Your task to perform on an android device: Search for top rated pizza restaurants on Maps Image 0: 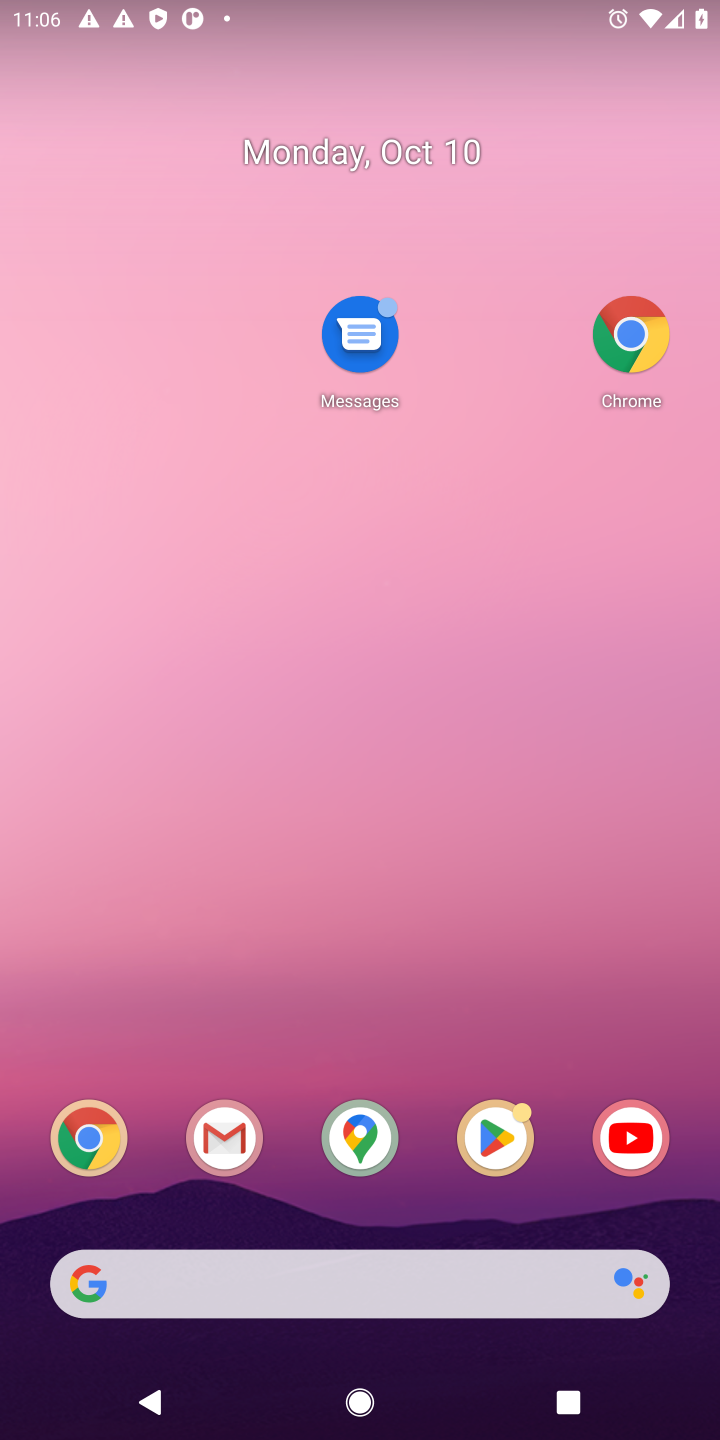
Step 0: click (656, 334)
Your task to perform on an android device: Search for top rated pizza restaurants on Maps Image 1: 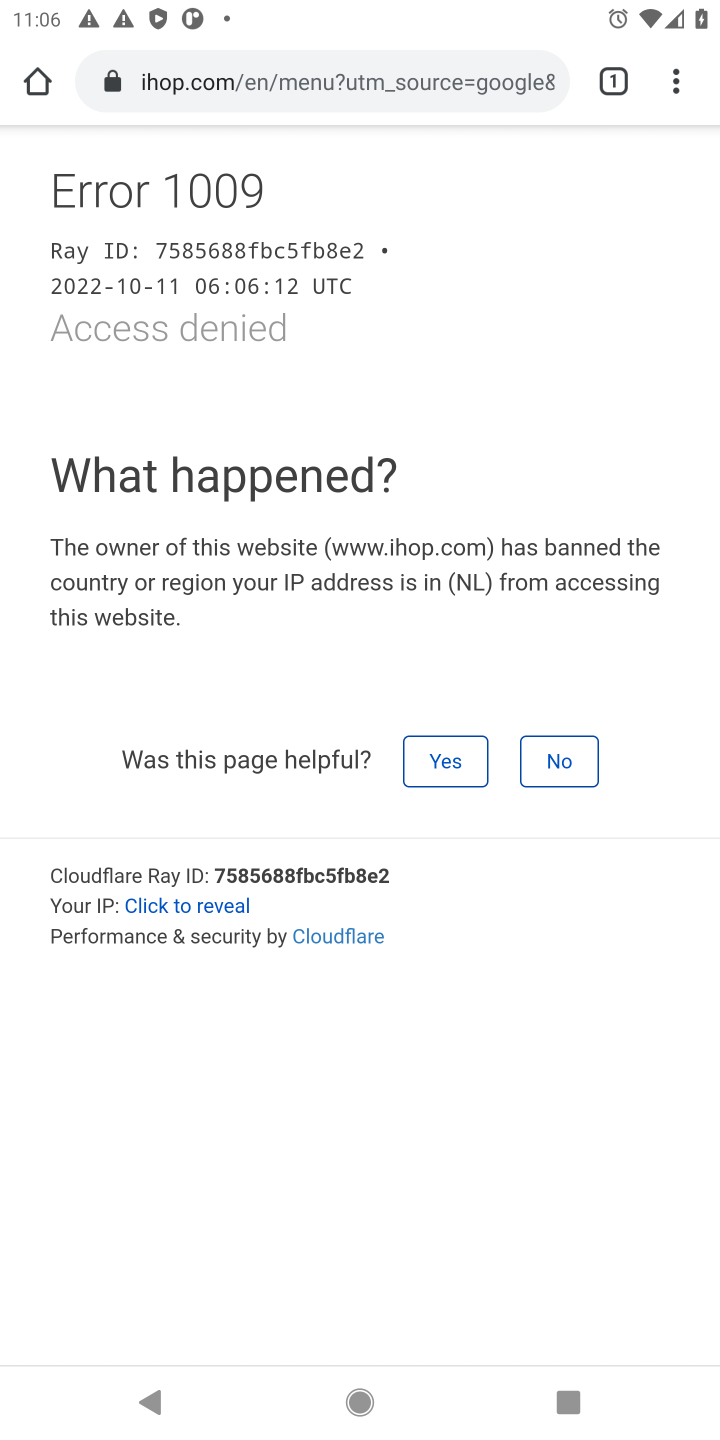
Step 1: press home button
Your task to perform on an android device: Search for top rated pizza restaurants on Maps Image 2: 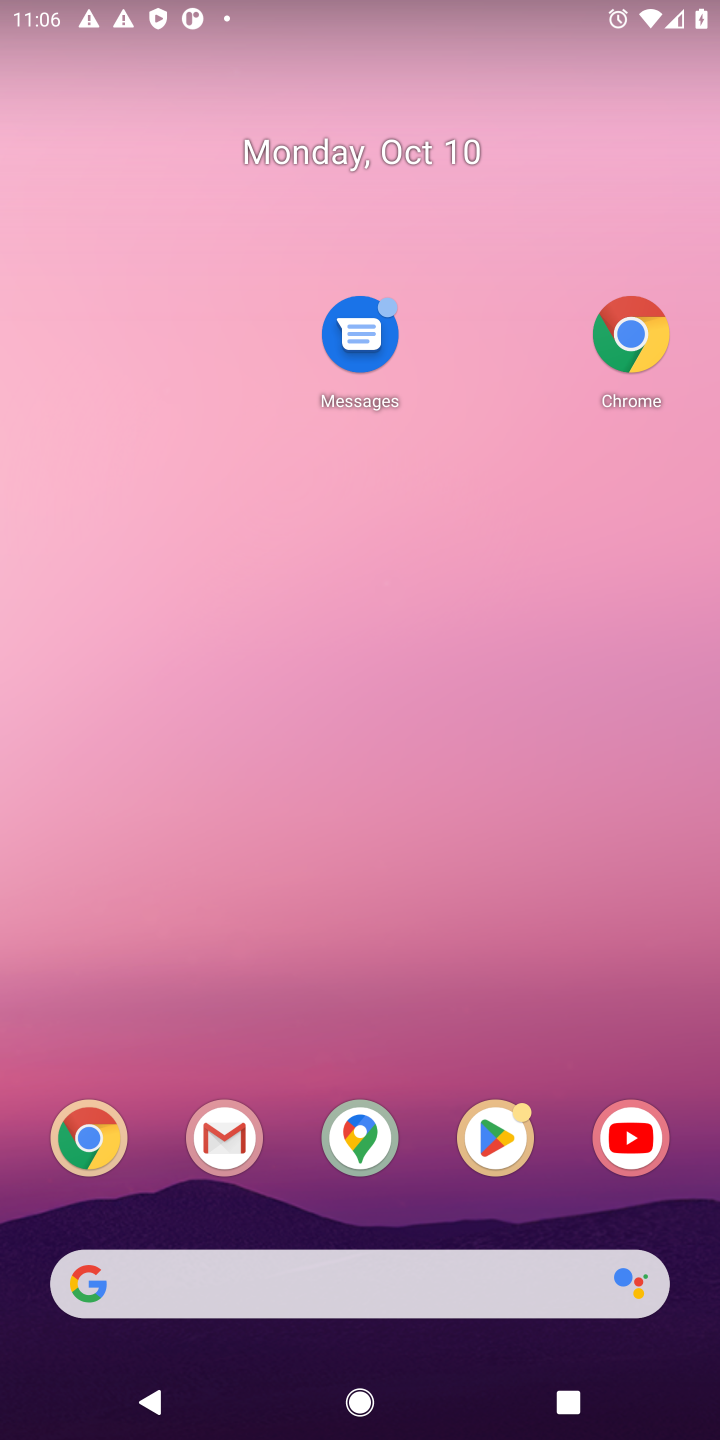
Step 2: click (361, 1143)
Your task to perform on an android device: Search for top rated pizza restaurants on Maps Image 3: 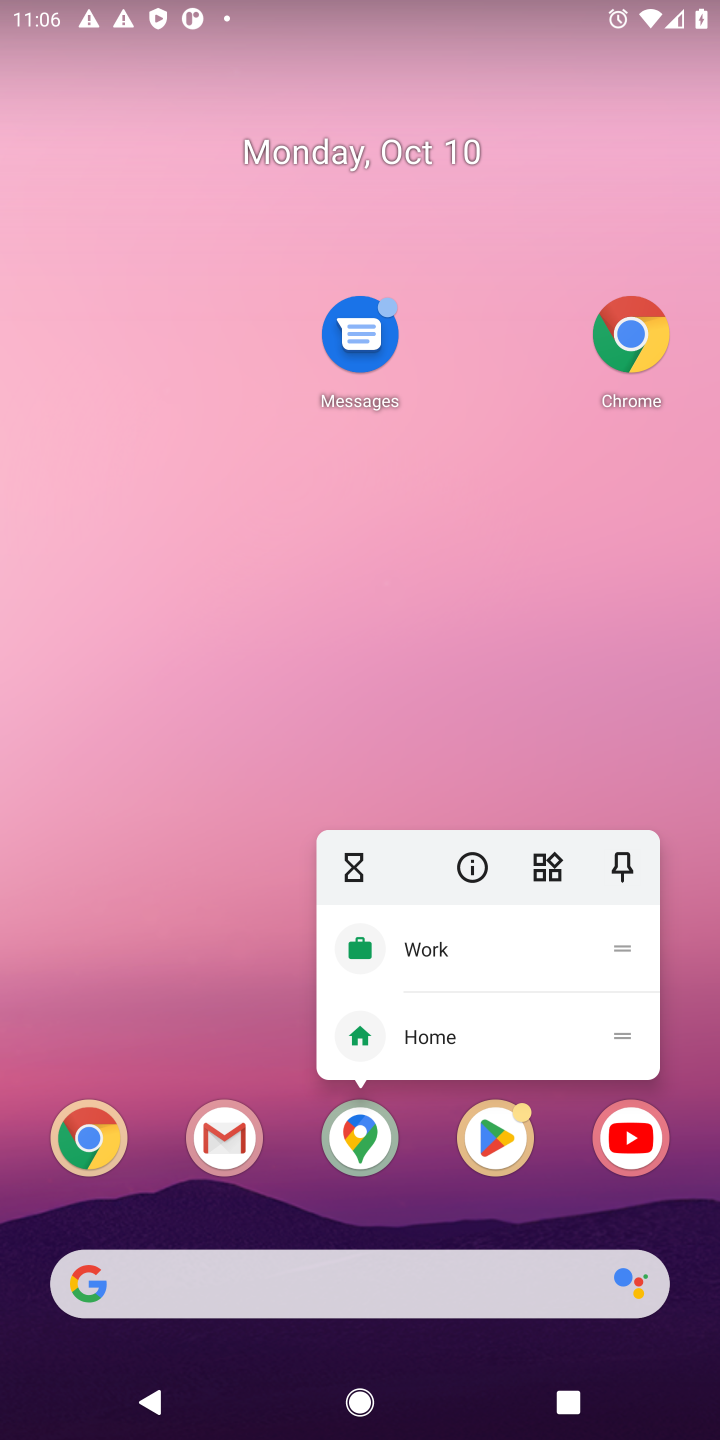
Step 3: click (351, 1153)
Your task to perform on an android device: Search for top rated pizza restaurants on Maps Image 4: 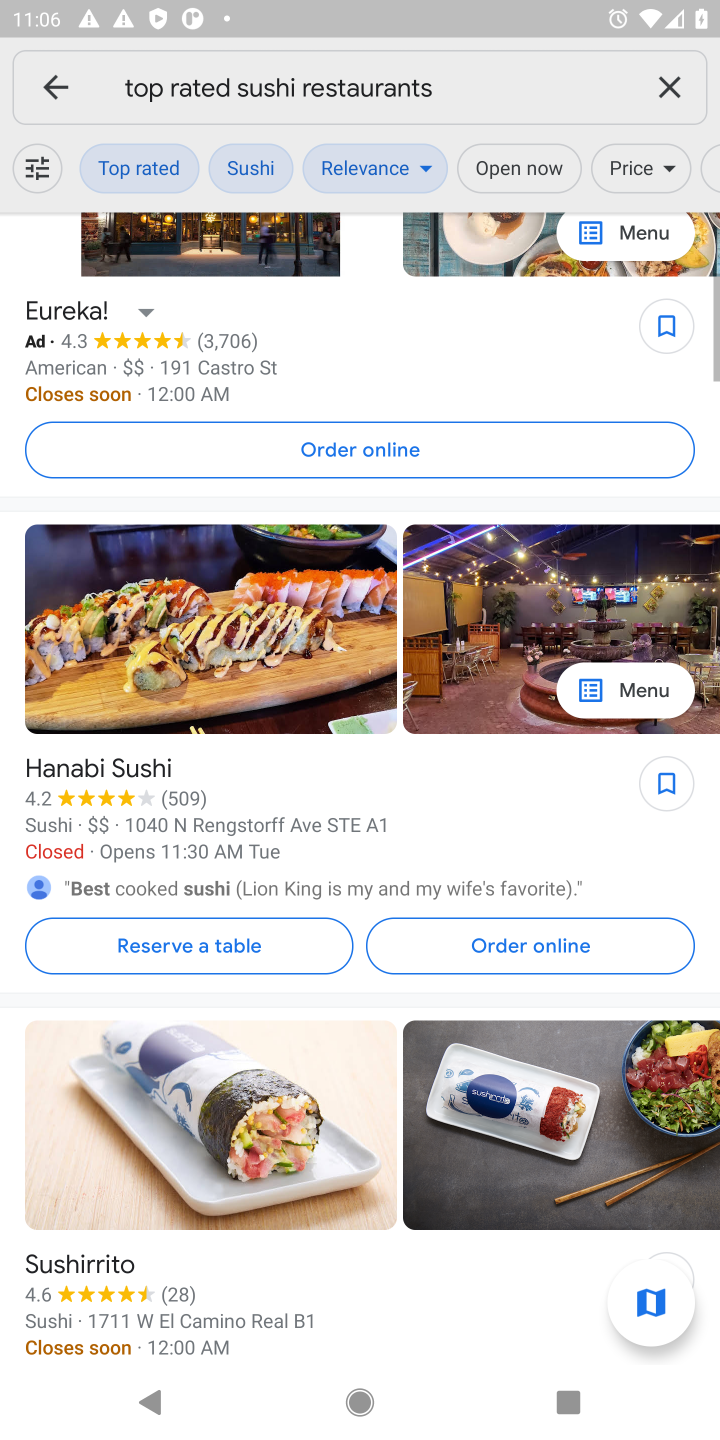
Step 4: click (471, 90)
Your task to perform on an android device: Search for top rated pizza restaurants on Maps Image 5: 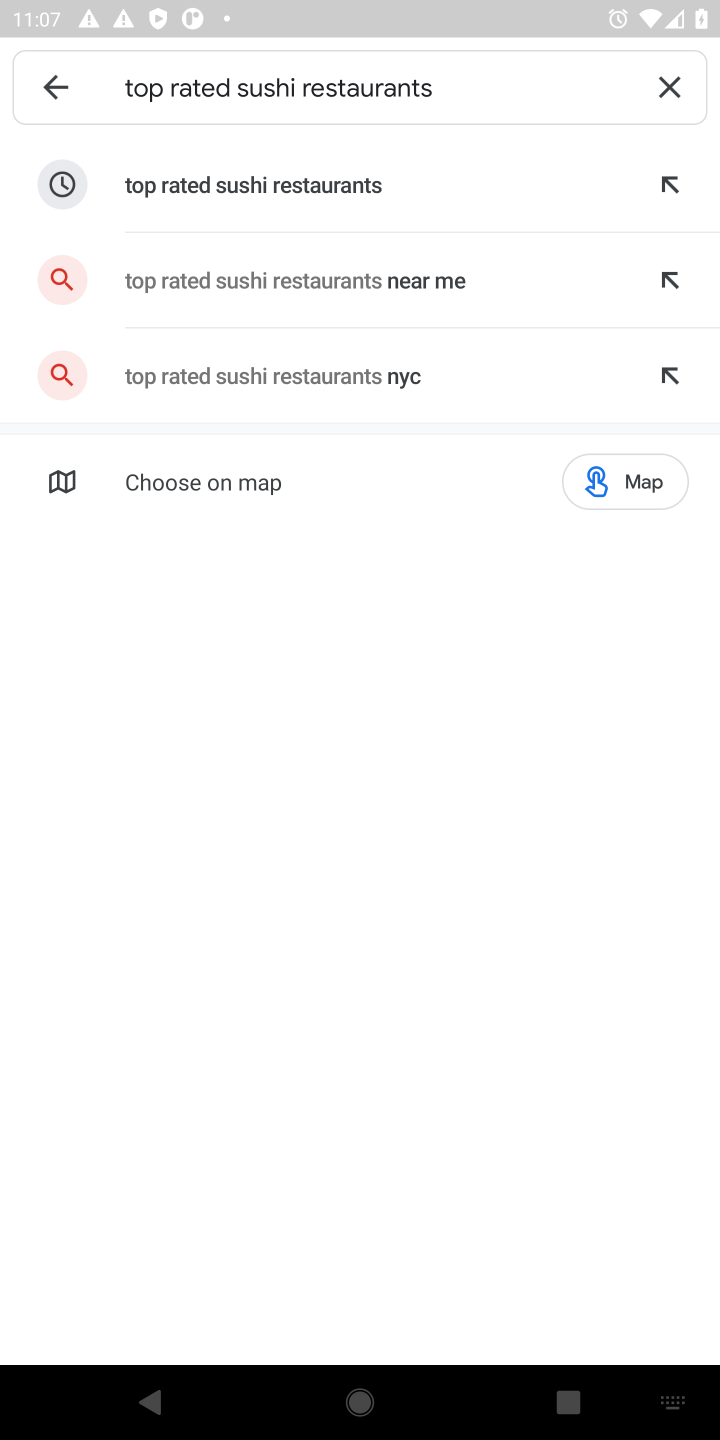
Step 5: click (683, 81)
Your task to perform on an android device: Search for top rated pizza restaurants on Maps Image 6: 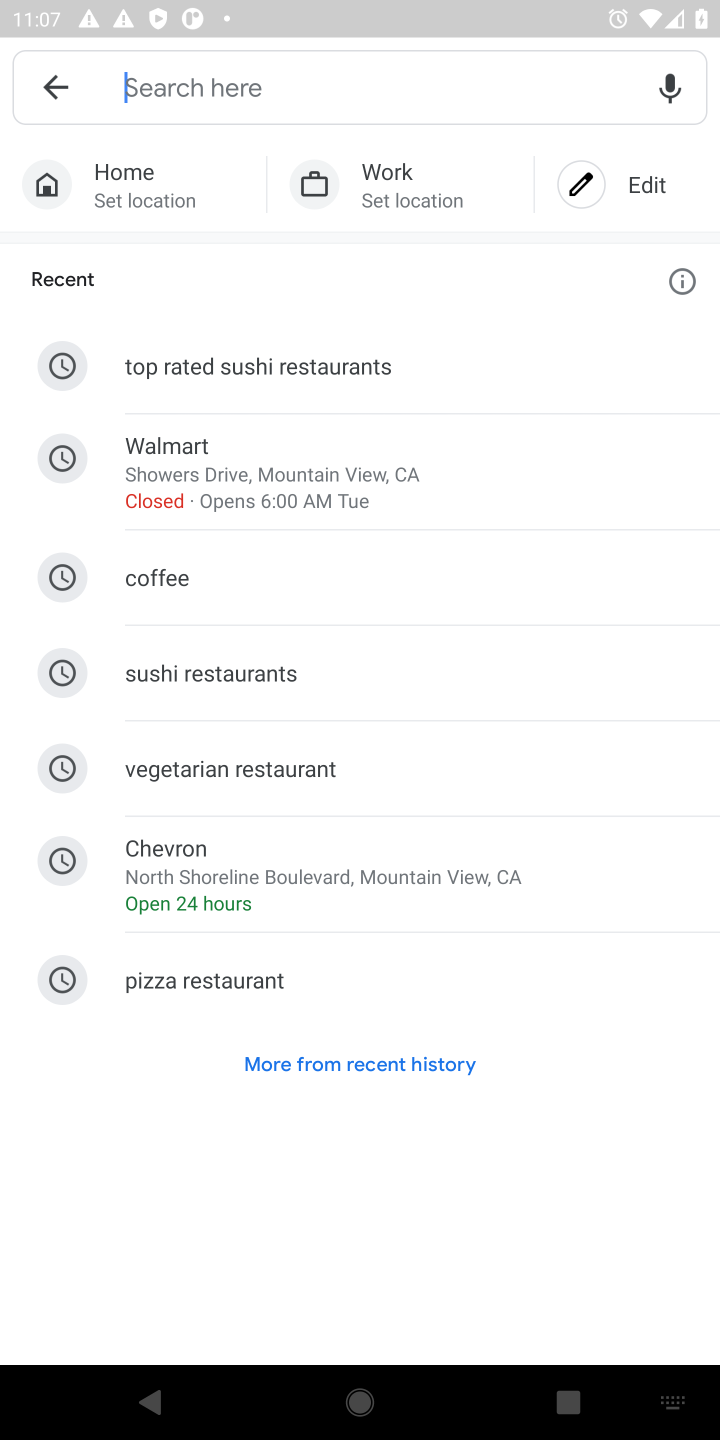
Step 6: type "top rated pizza restaurants"
Your task to perform on an android device: Search for top rated pizza restaurants on Maps Image 7: 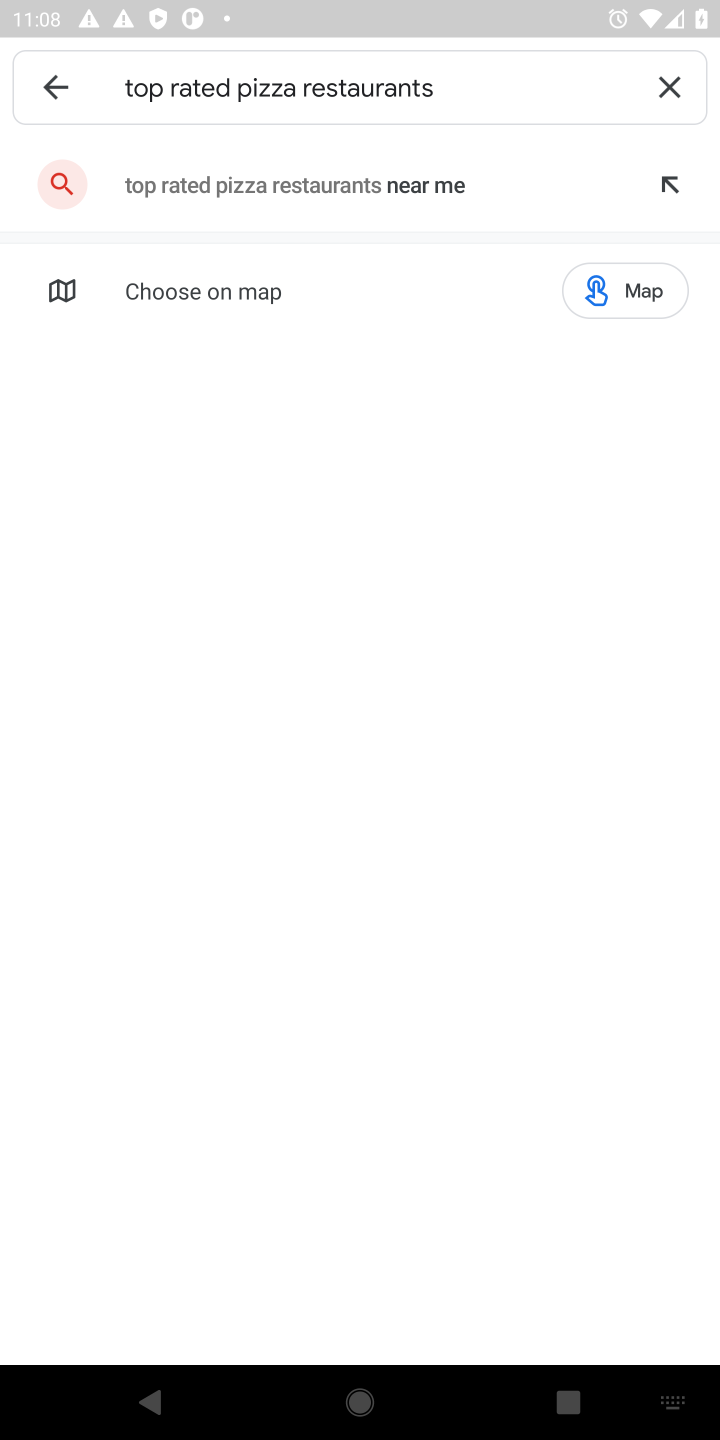
Step 7: press enter
Your task to perform on an android device: Search for top rated pizza restaurants on Maps Image 8: 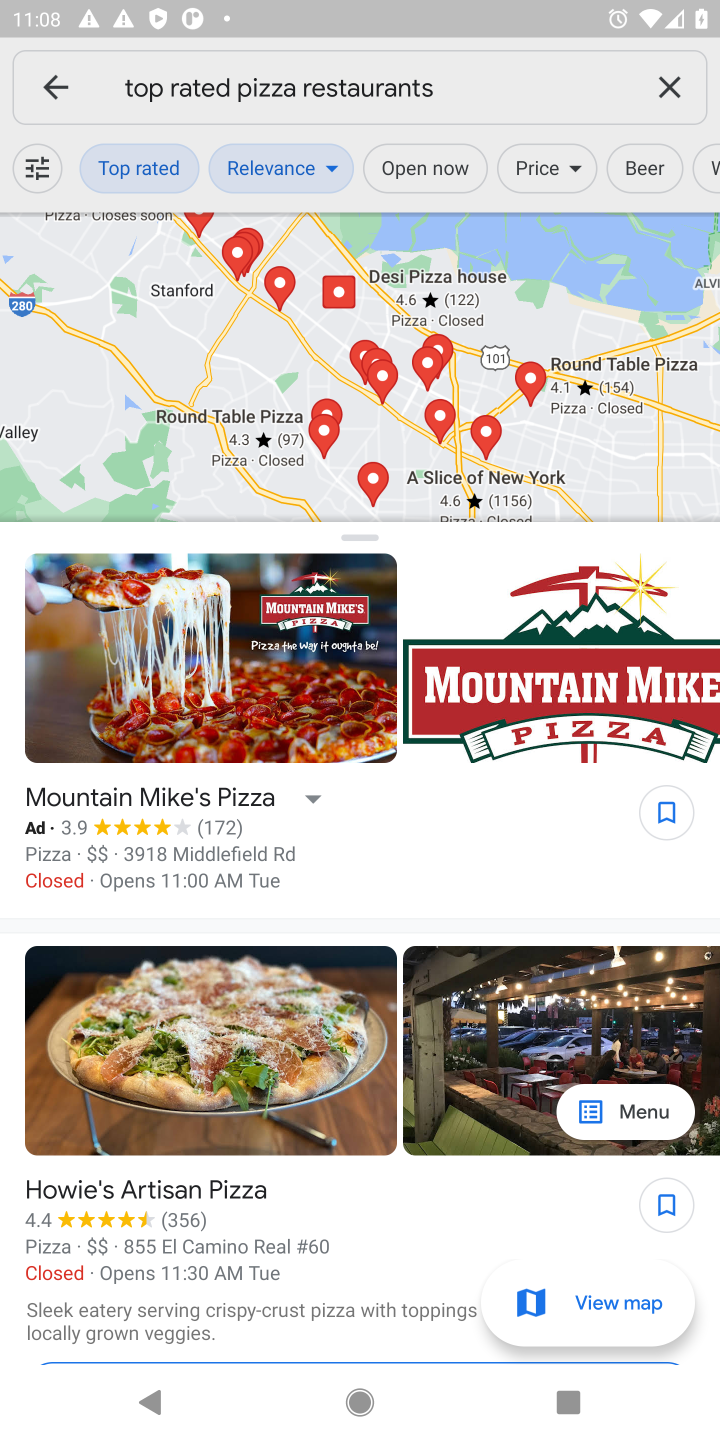
Step 8: task complete